Your task to perform on an android device: change the clock style Image 0: 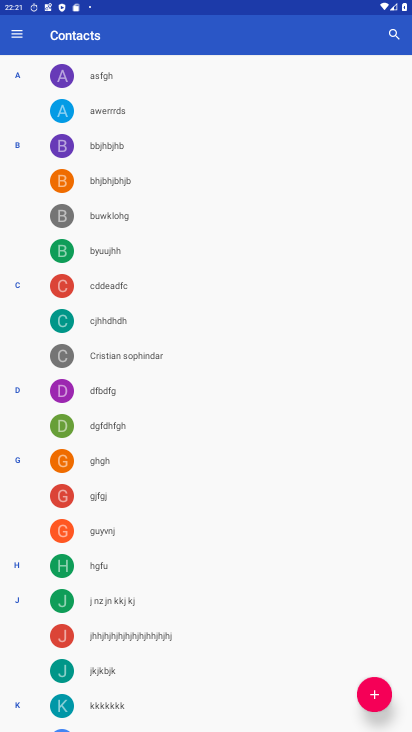
Step 0: press home button
Your task to perform on an android device: change the clock style Image 1: 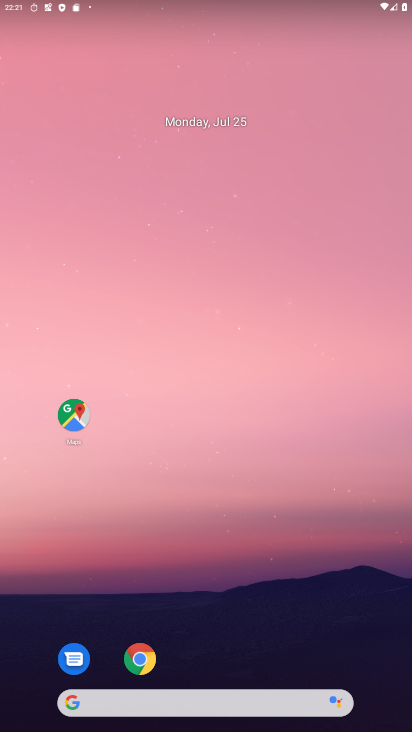
Step 1: drag from (183, 652) to (246, 176)
Your task to perform on an android device: change the clock style Image 2: 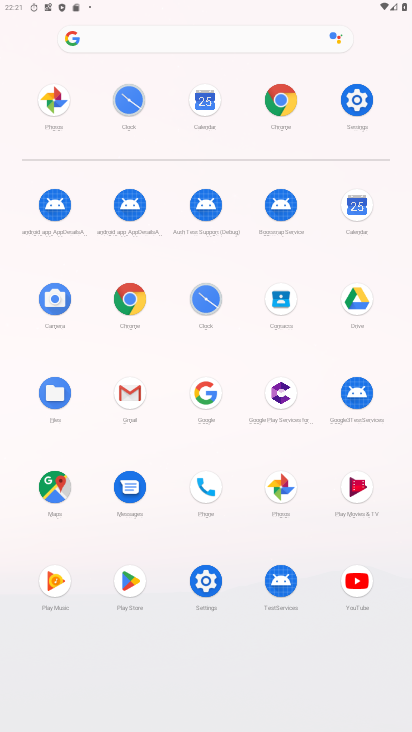
Step 2: click (218, 301)
Your task to perform on an android device: change the clock style Image 3: 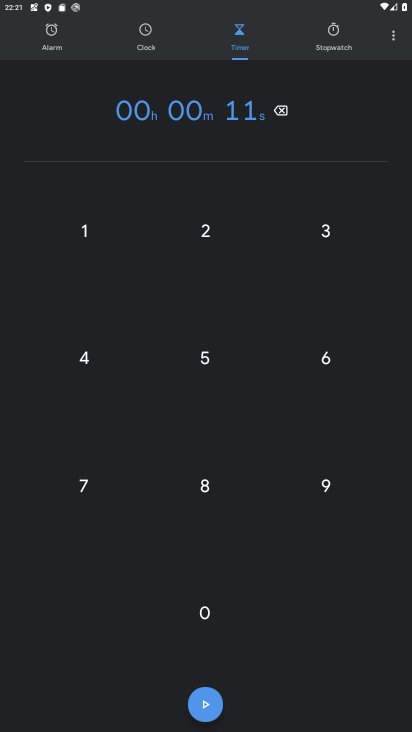
Step 3: click (396, 30)
Your task to perform on an android device: change the clock style Image 4: 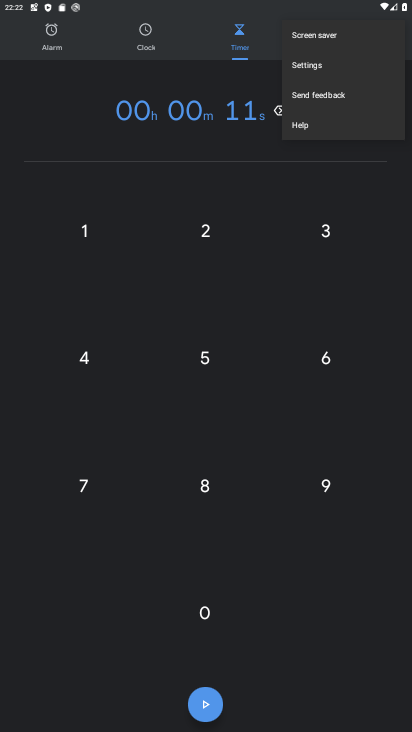
Step 4: click (344, 66)
Your task to perform on an android device: change the clock style Image 5: 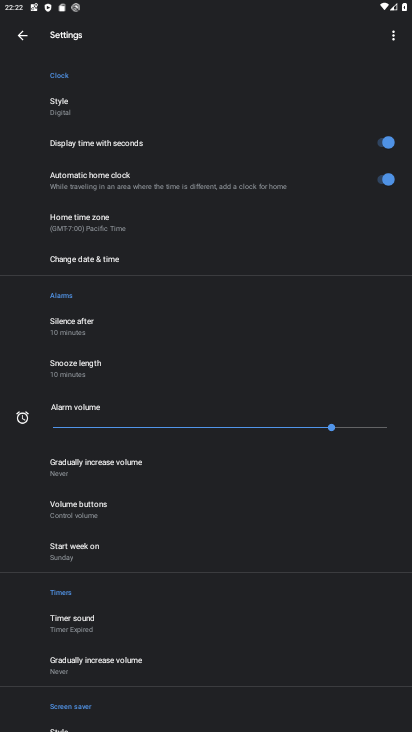
Step 5: click (75, 117)
Your task to perform on an android device: change the clock style Image 6: 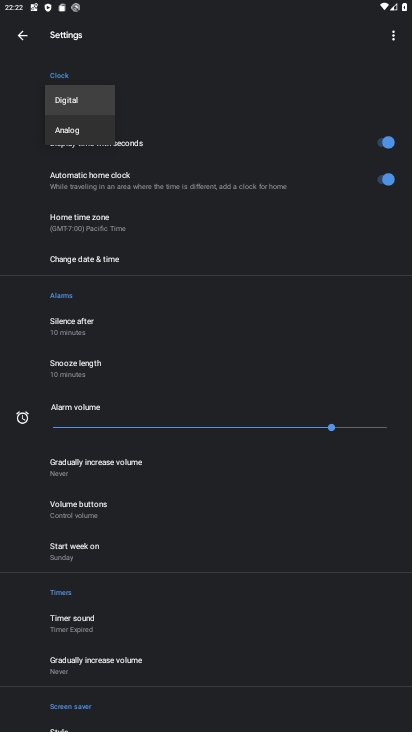
Step 6: click (68, 128)
Your task to perform on an android device: change the clock style Image 7: 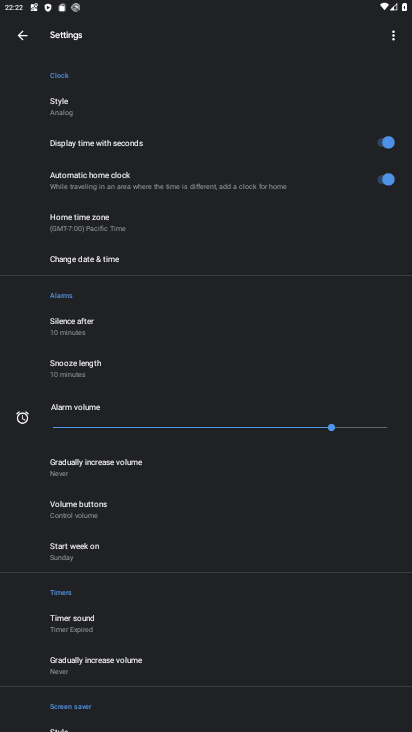
Step 7: task complete